Your task to perform on an android device: read, delete, or share a saved page in the chrome app Image 0: 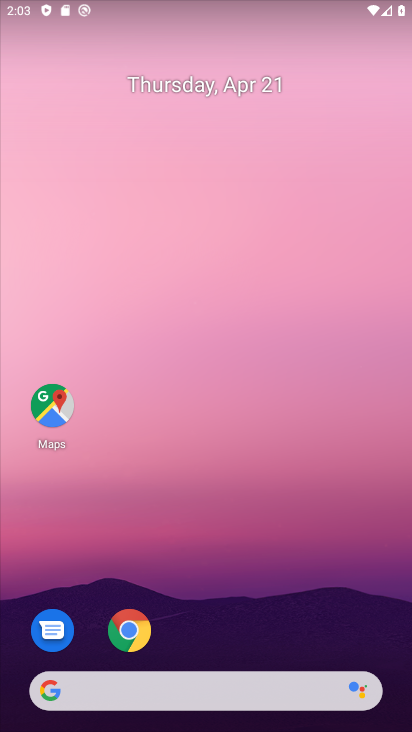
Step 0: drag from (332, 627) to (348, 172)
Your task to perform on an android device: read, delete, or share a saved page in the chrome app Image 1: 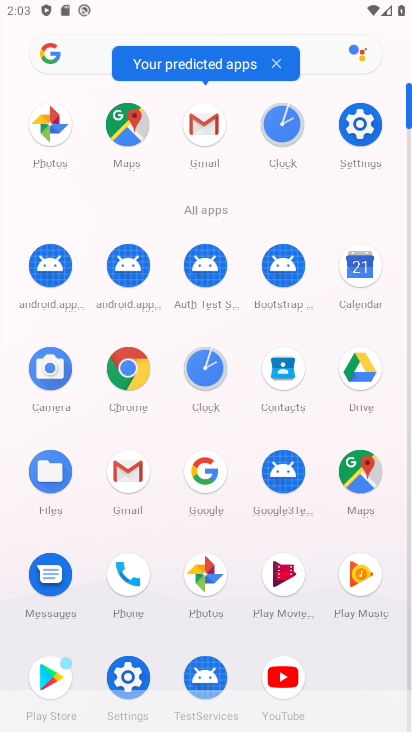
Step 1: click (125, 380)
Your task to perform on an android device: read, delete, or share a saved page in the chrome app Image 2: 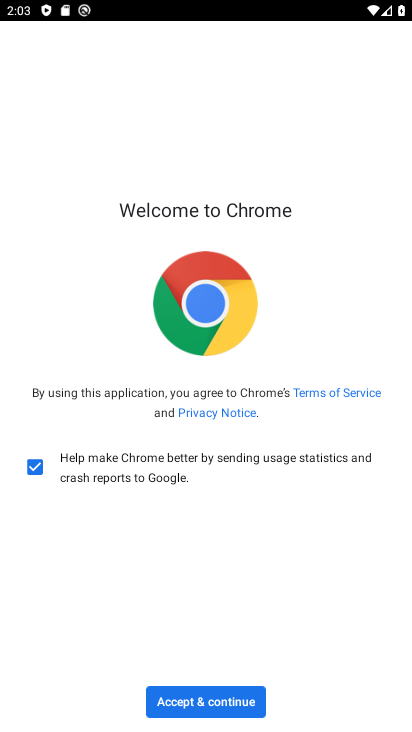
Step 2: click (247, 699)
Your task to perform on an android device: read, delete, or share a saved page in the chrome app Image 3: 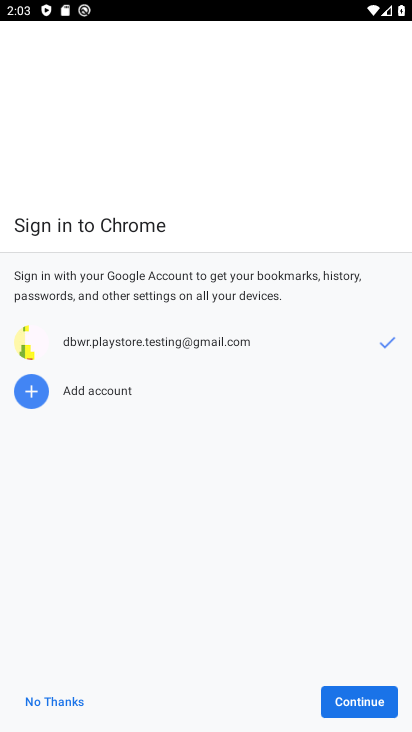
Step 3: click (354, 699)
Your task to perform on an android device: read, delete, or share a saved page in the chrome app Image 4: 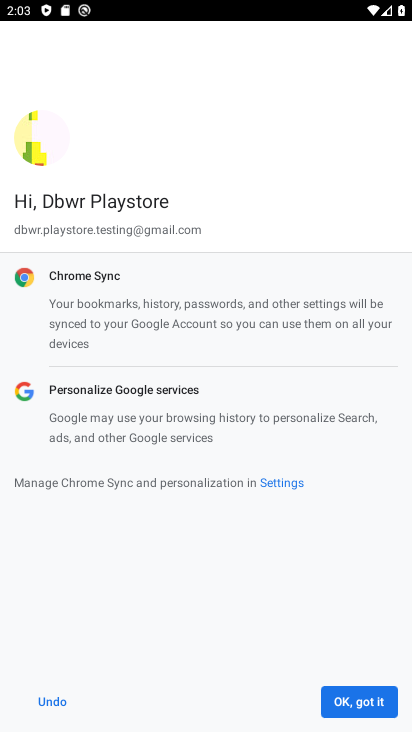
Step 4: click (338, 701)
Your task to perform on an android device: read, delete, or share a saved page in the chrome app Image 5: 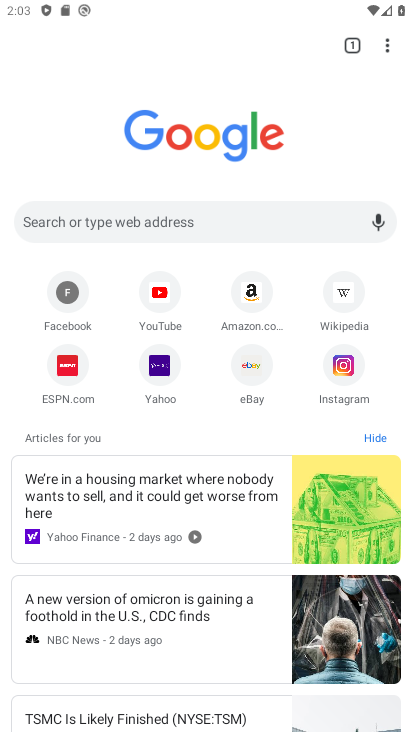
Step 5: click (391, 44)
Your task to perform on an android device: read, delete, or share a saved page in the chrome app Image 6: 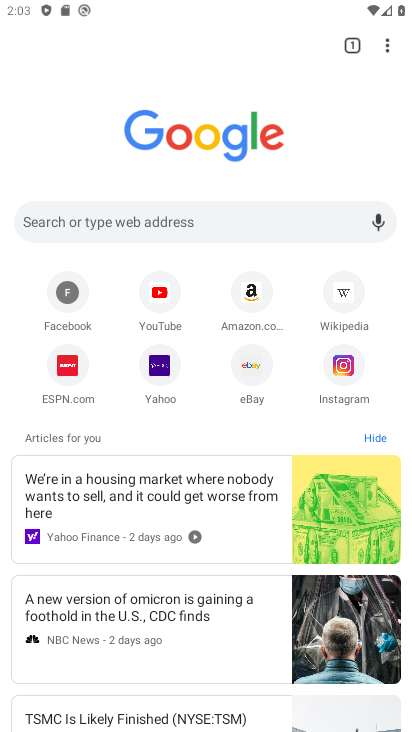
Step 6: click (384, 47)
Your task to perform on an android device: read, delete, or share a saved page in the chrome app Image 7: 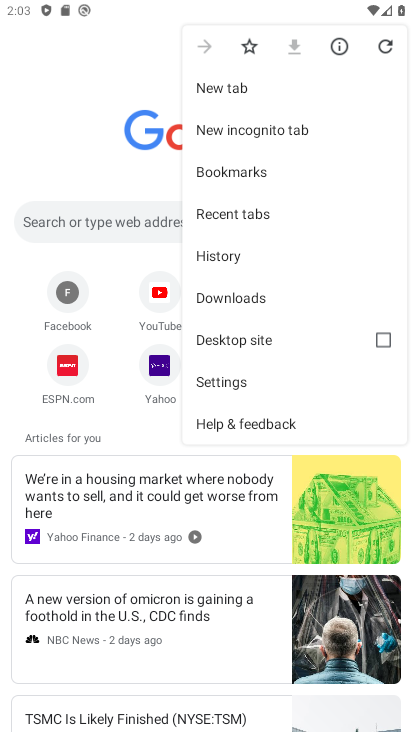
Step 7: click (253, 300)
Your task to perform on an android device: read, delete, or share a saved page in the chrome app Image 8: 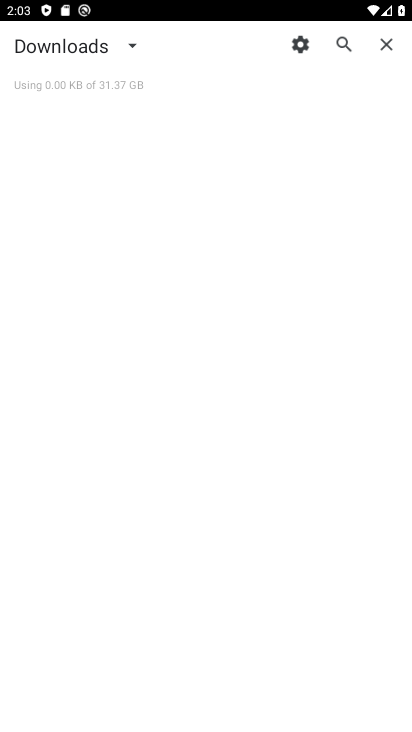
Step 8: click (120, 42)
Your task to perform on an android device: read, delete, or share a saved page in the chrome app Image 9: 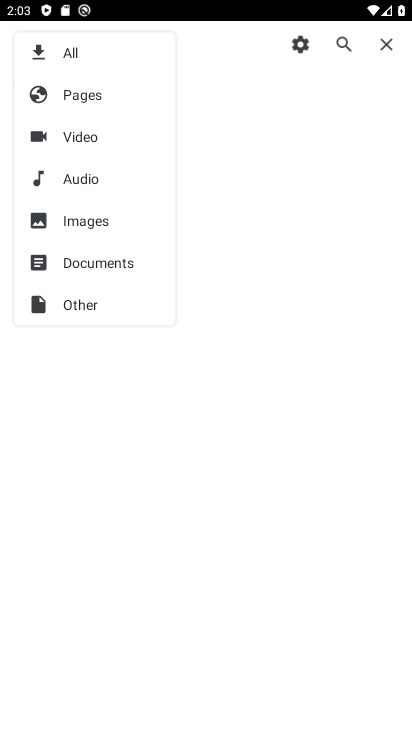
Step 9: click (104, 102)
Your task to perform on an android device: read, delete, or share a saved page in the chrome app Image 10: 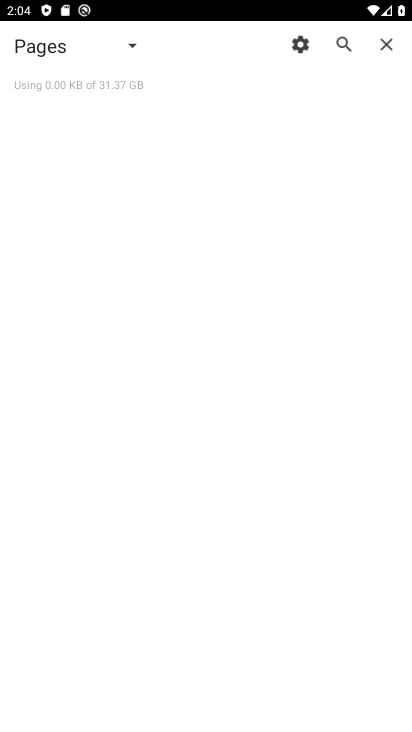
Step 10: task complete